Your task to perform on an android device: Go to network settings Image 0: 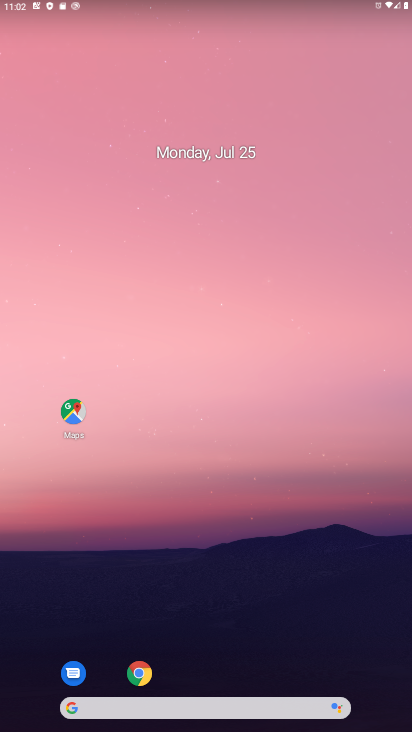
Step 0: press home button
Your task to perform on an android device: Go to network settings Image 1: 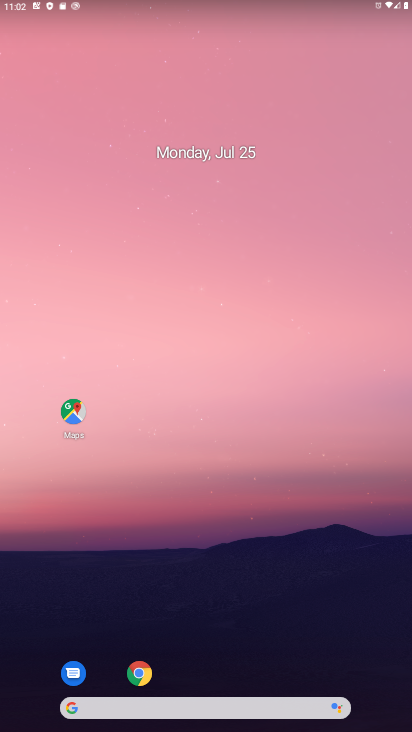
Step 1: drag from (231, 668) to (239, 0)
Your task to perform on an android device: Go to network settings Image 2: 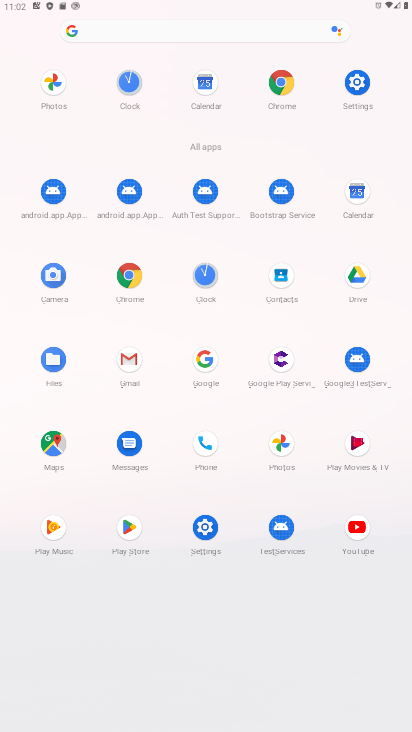
Step 2: click (358, 74)
Your task to perform on an android device: Go to network settings Image 3: 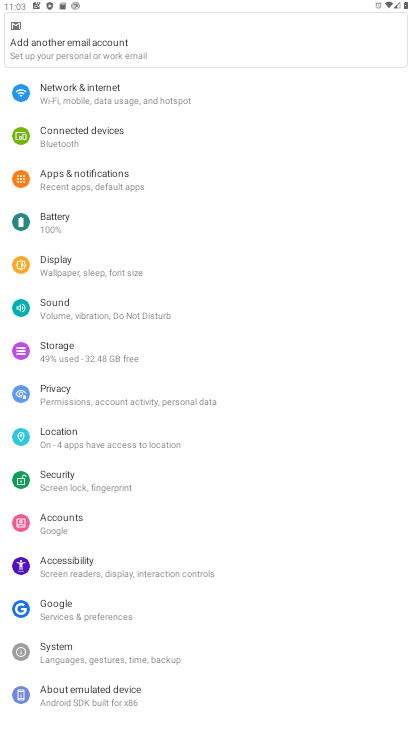
Step 3: click (120, 88)
Your task to perform on an android device: Go to network settings Image 4: 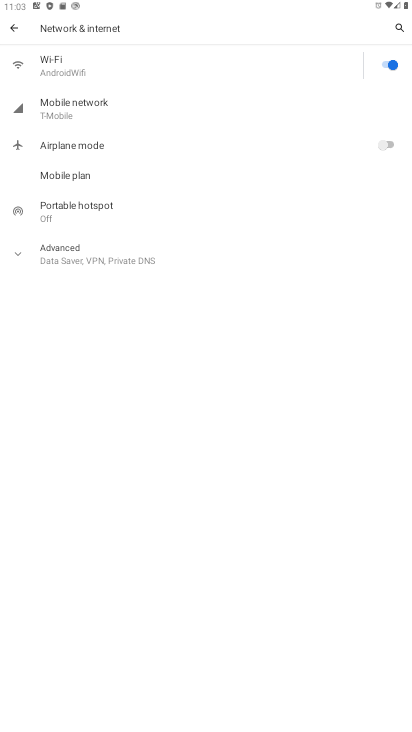
Step 4: click (16, 250)
Your task to perform on an android device: Go to network settings Image 5: 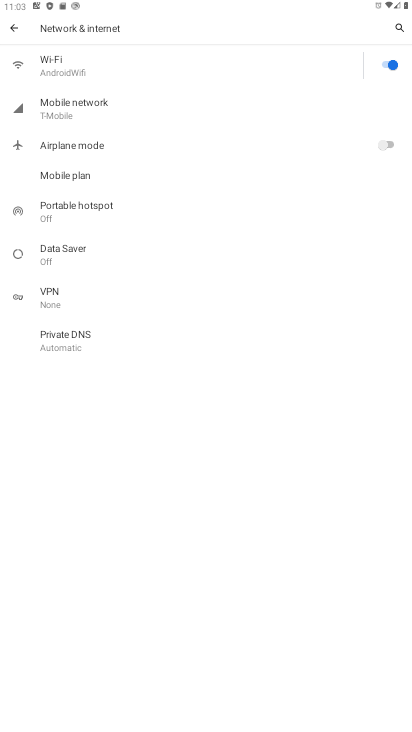
Step 5: task complete